Your task to perform on an android device: Search for Mexican restaurants on Maps Image 0: 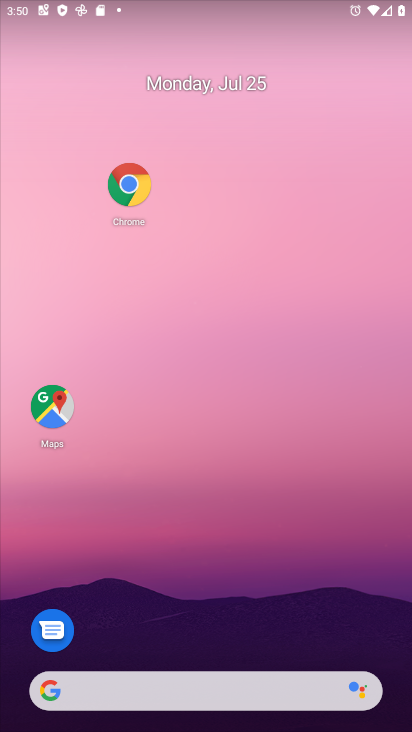
Step 0: click (71, 416)
Your task to perform on an android device: Search for Mexican restaurants on Maps Image 1: 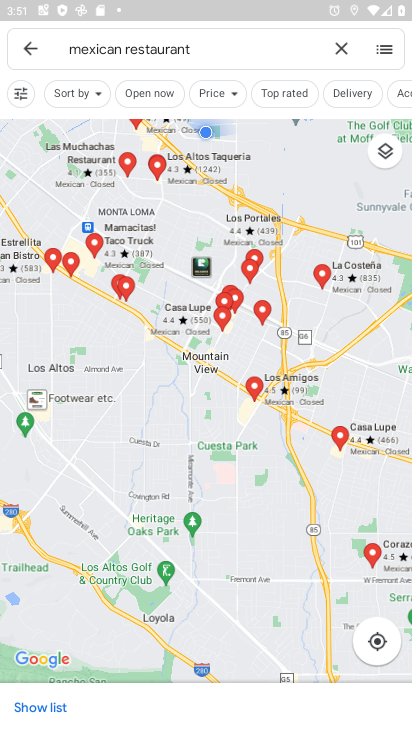
Step 1: task complete